Your task to perform on an android device: Open Youtube and go to the subscriptions tab Image 0: 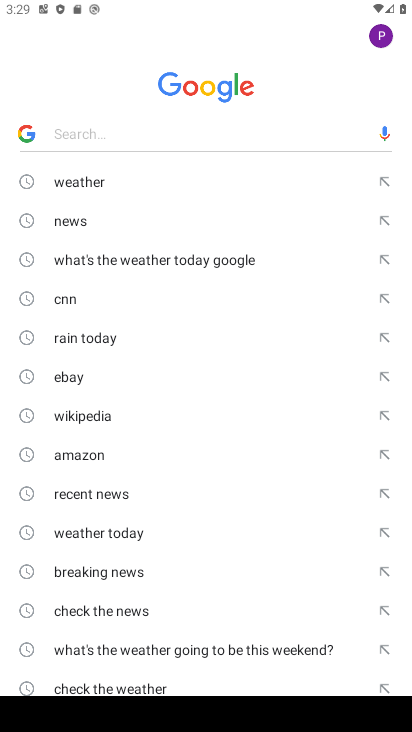
Step 0: press home button
Your task to perform on an android device: Open Youtube and go to the subscriptions tab Image 1: 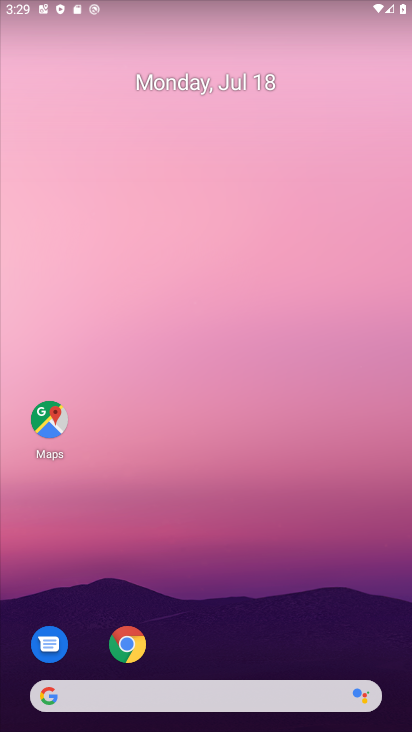
Step 1: drag from (392, 667) to (361, 174)
Your task to perform on an android device: Open Youtube and go to the subscriptions tab Image 2: 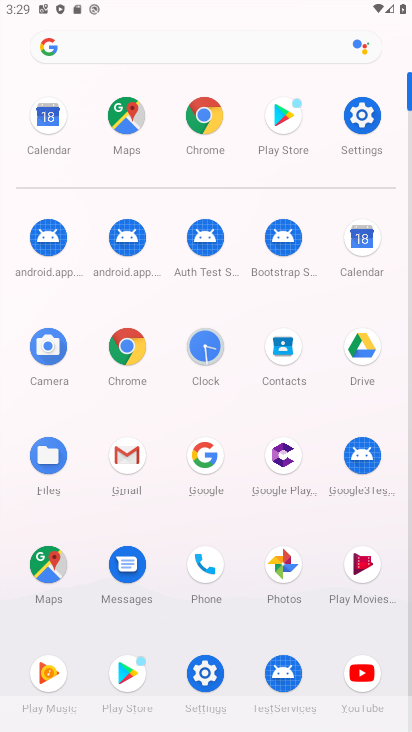
Step 2: click (360, 672)
Your task to perform on an android device: Open Youtube and go to the subscriptions tab Image 3: 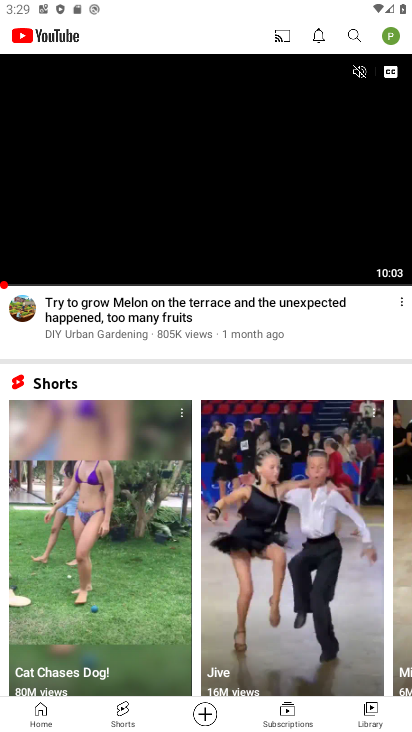
Step 3: click (285, 709)
Your task to perform on an android device: Open Youtube and go to the subscriptions tab Image 4: 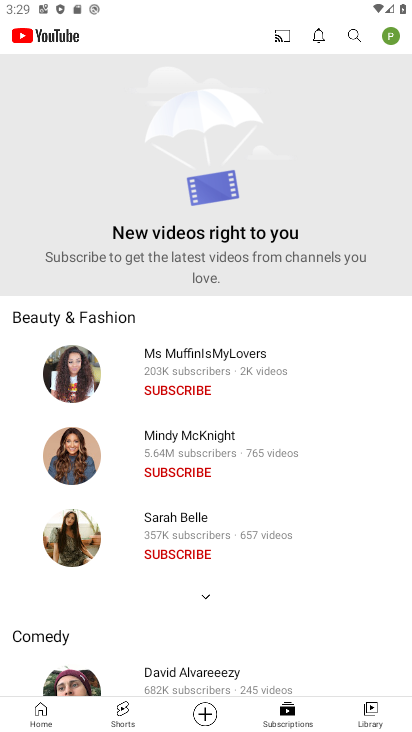
Step 4: task complete